Your task to perform on an android device: set default search engine in the chrome app Image 0: 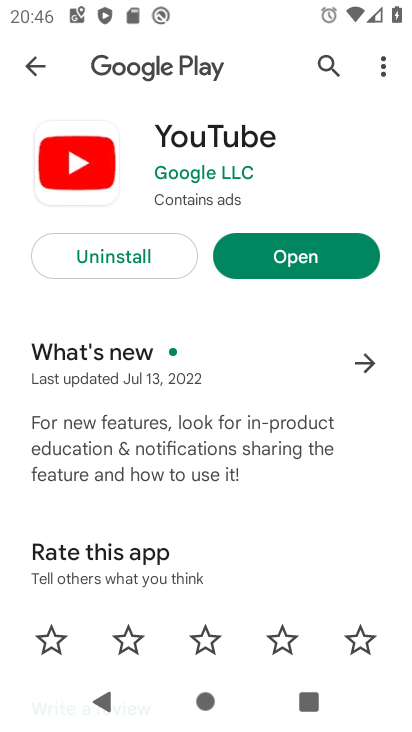
Step 0: press home button
Your task to perform on an android device: set default search engine in the chrome app Image 1: 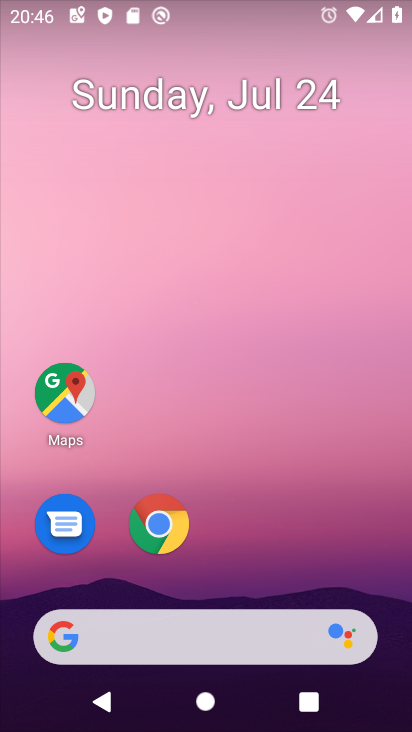
Step 1: click (159, 528)
Your task to perform on an android device: set default search engine in the chrome app Image 2: 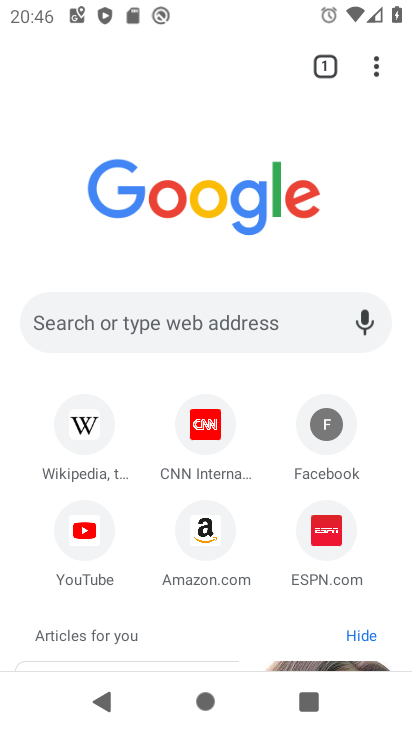
Step 2: click (377, 68)
Your task to perform on an android device: set default search engine in the chrome app Image 3: 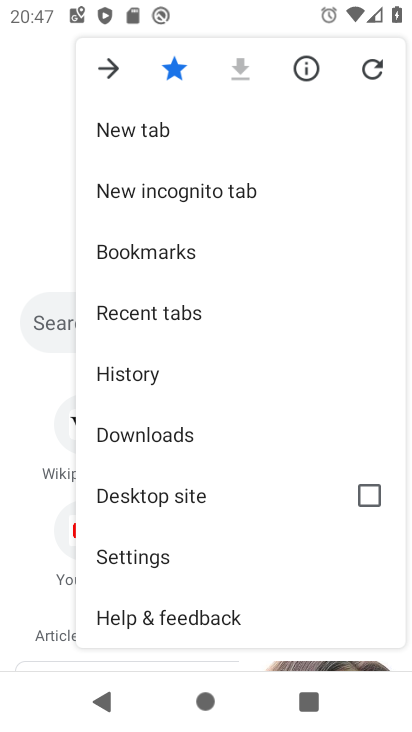
Step 3: click (157, 552)
Your task to perform on an android device: set default search engine in the chrome app Image 4: 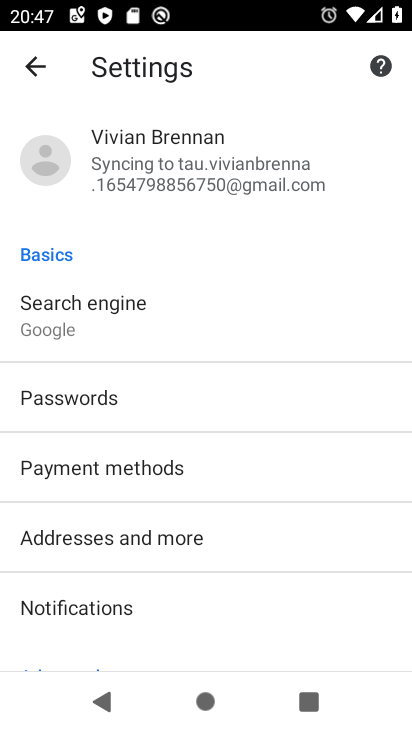
Step 4: click (119, 326)
Your task to perform on an android device: set default search engine in the chrome app Image 5: 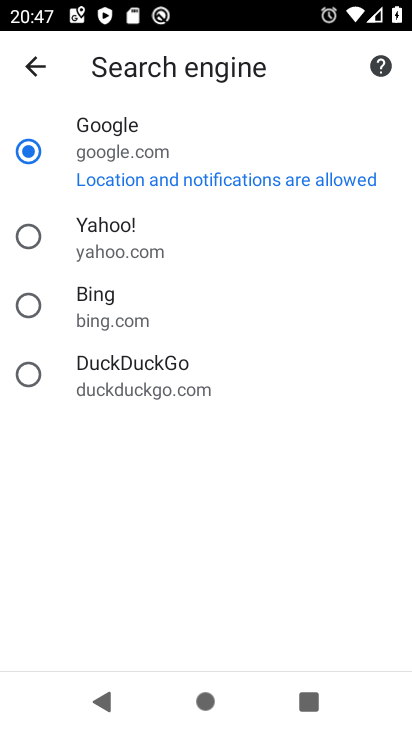
Step 5: task complete